Your task to perform on an android device: Go to Reddit.com Image 0: 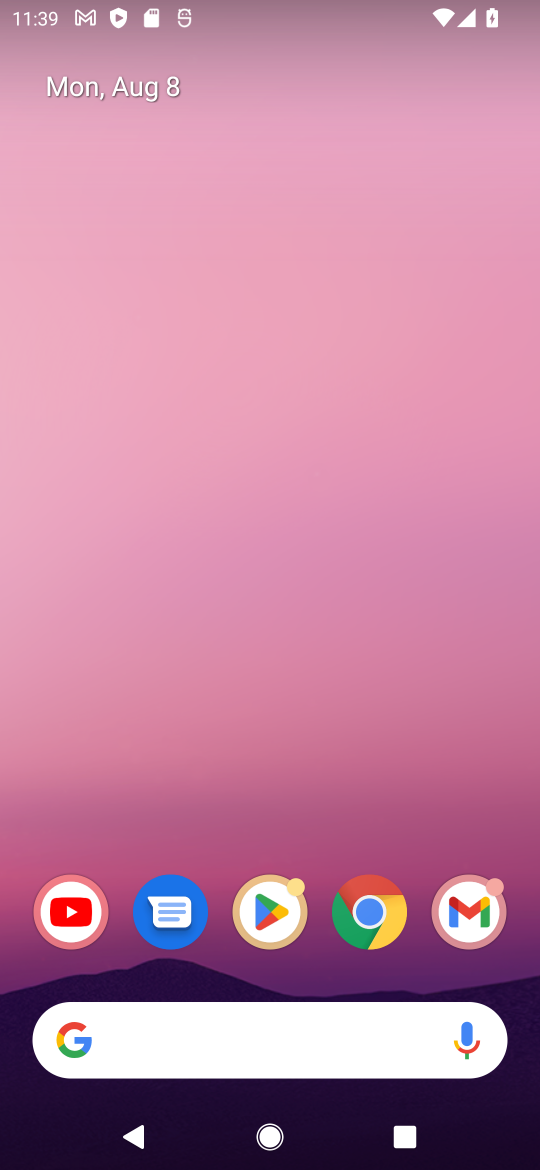
Step 0: click (359, 909)
Your task to perform on an android device: Go to Reddit.com Image 1: 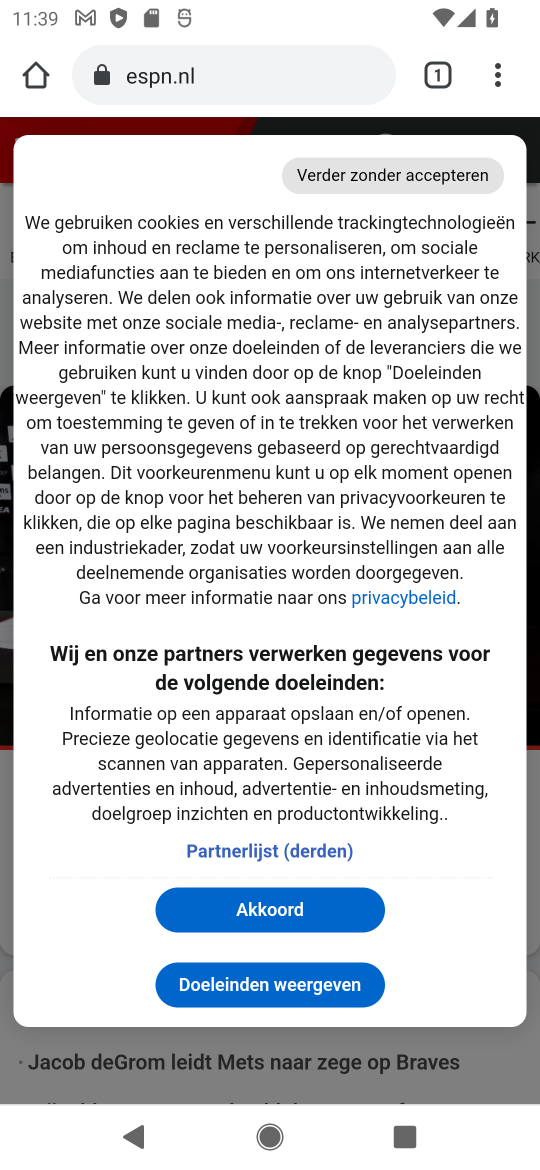
Step 1: click (446, 72)
Your task to perform on an android device: Go to Reddit.com Image 2: 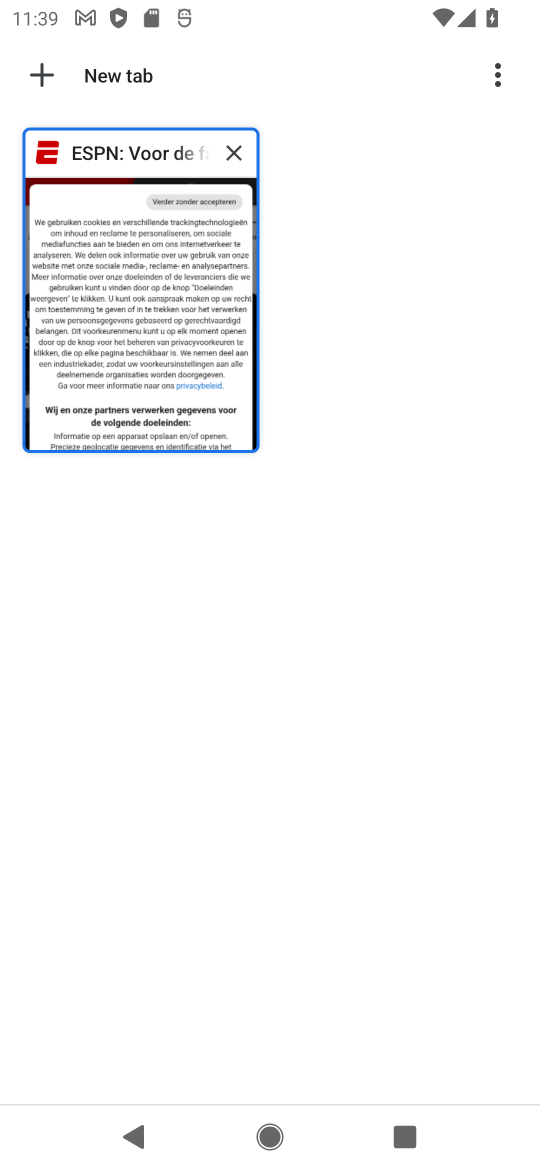
Step 2: click (42, 72)
Your task to perform on an android device: Go to Reddit.com Image 3: 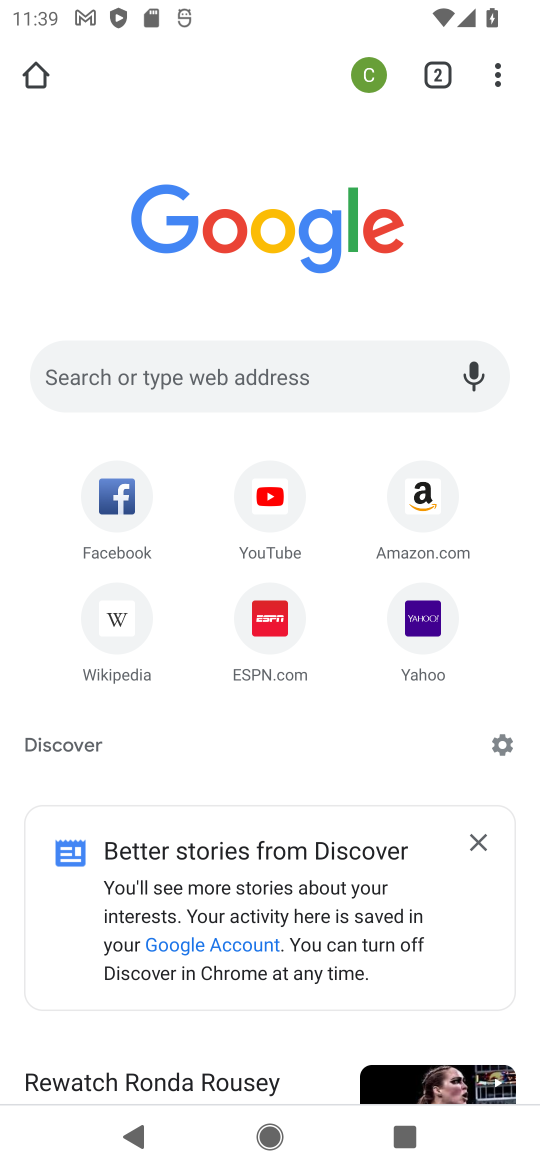
Step 3: click (184, 375)
Your task to perform on an android device: Go to Reddit.com Image 4: 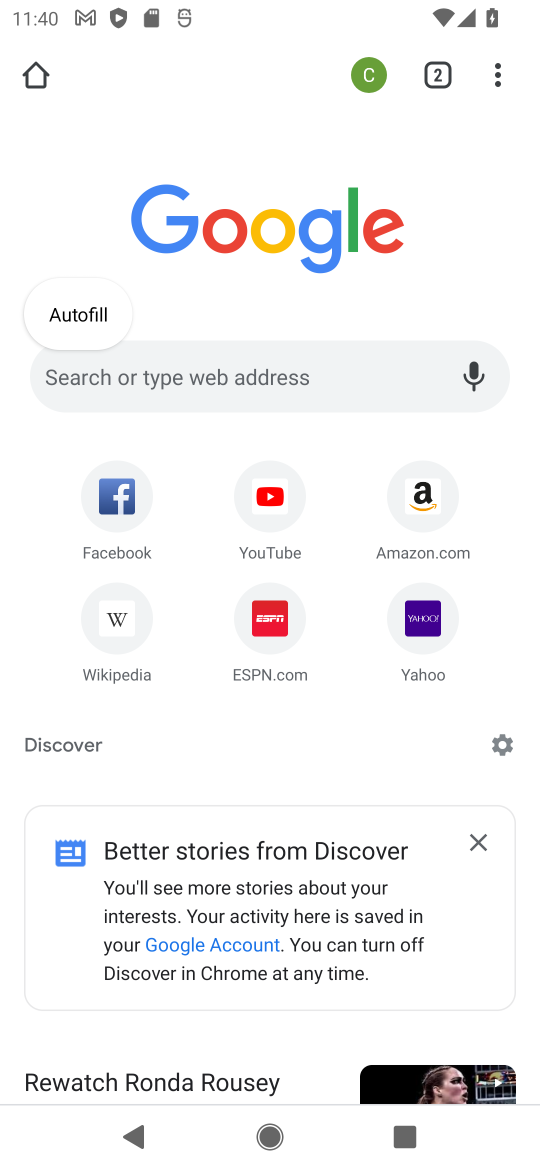
Step 4: type "reddit.com"
Your task to perform on an android device: Go to Reddit.com Image 5: 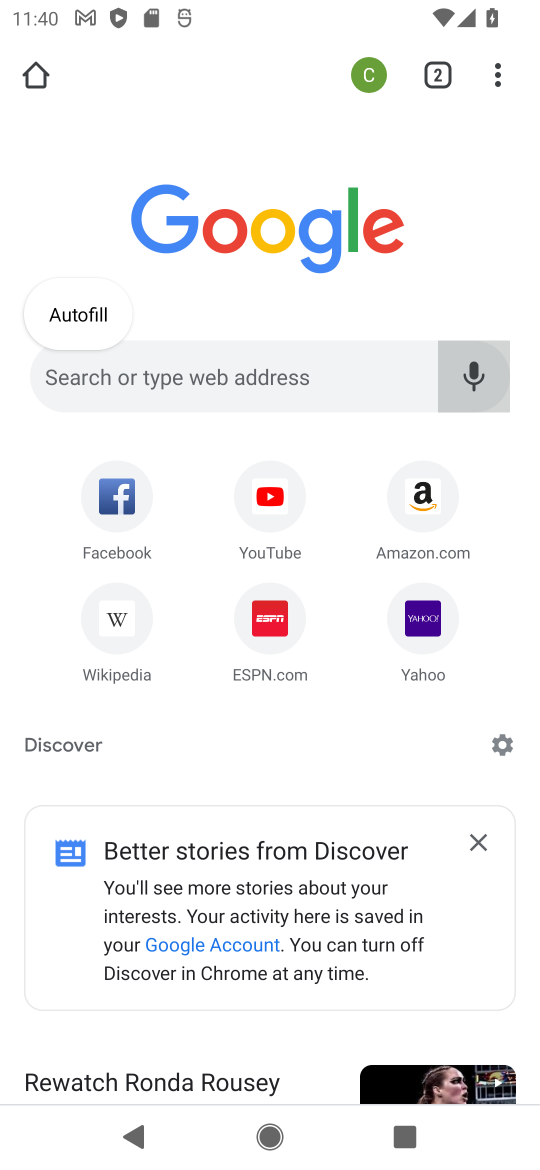
Step 5: click (124, 379)
Your task to perform on an android device: Go to Reddit.com Image 6: 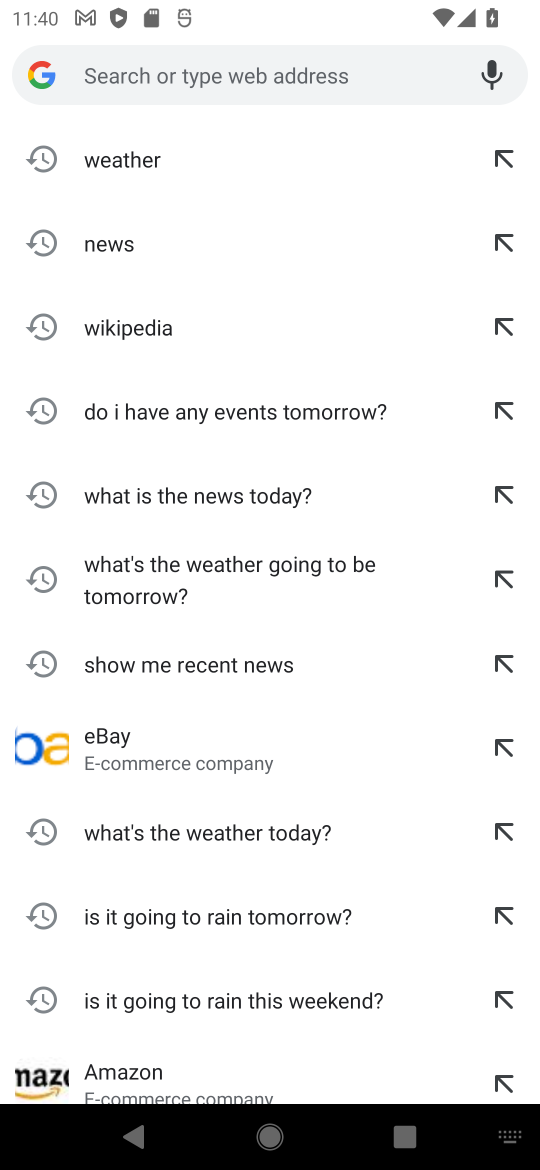
Step 6: type "reddit"
Your task to perform on an android device: Go to Reddit.com Image 7: 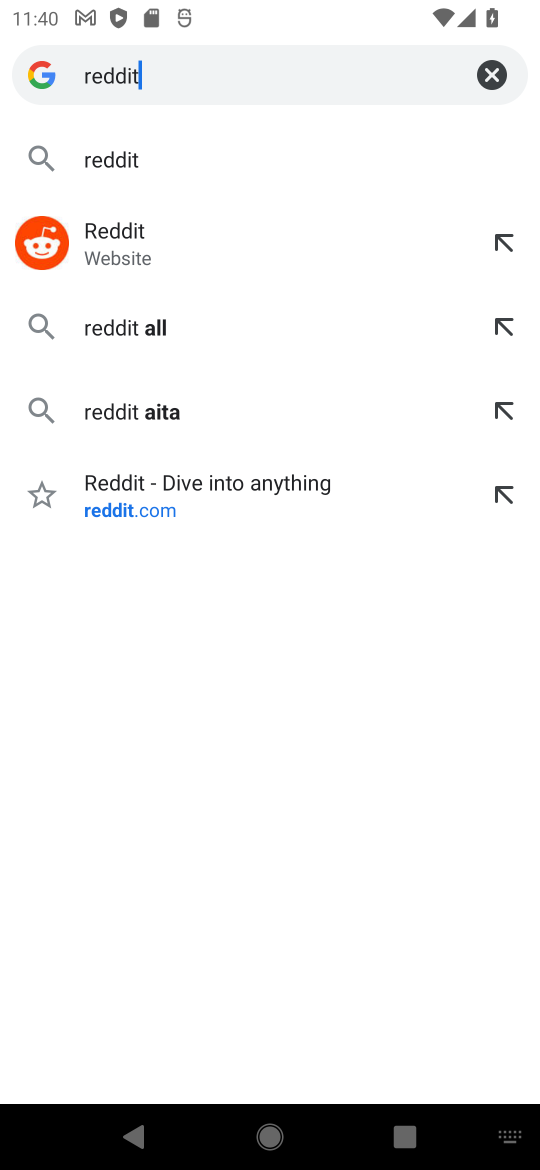
Step 7: click (224, 243)
Your task to perform on an android device: Go to Reddit.com Image 8: 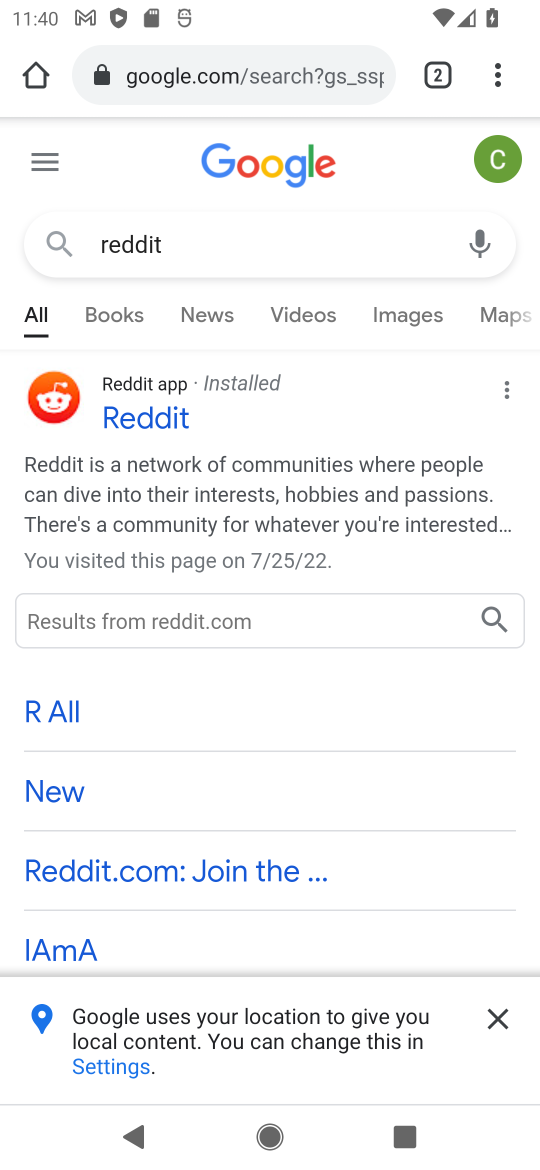
Step 8: click (131, 409)
Your task to perform on an android device: Go to Reddit.com Image 9: 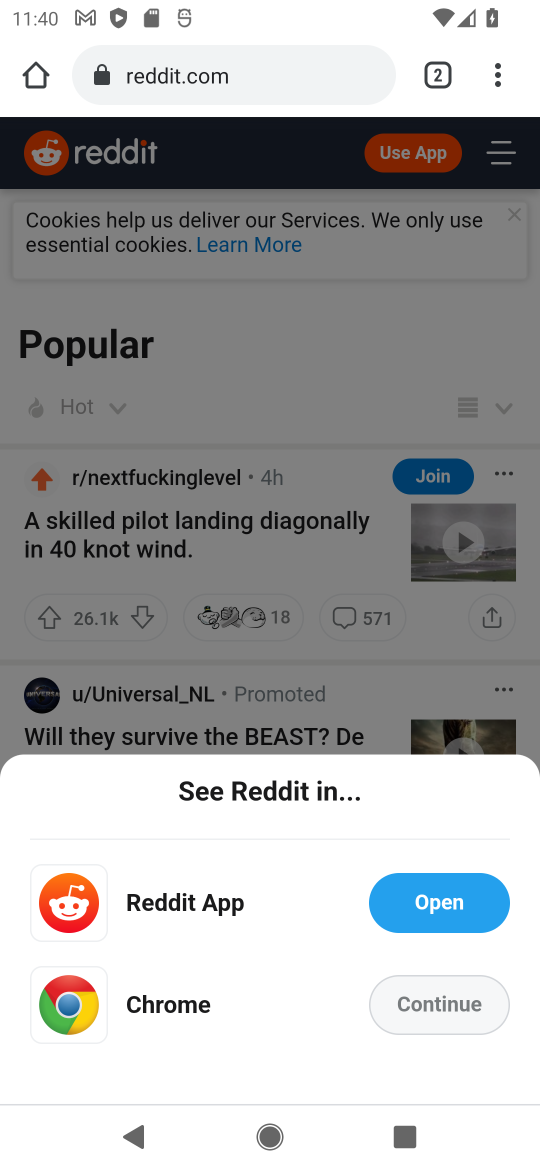
Step 9: task complete